Your task to perform on an android device: Check the weather Image 0: 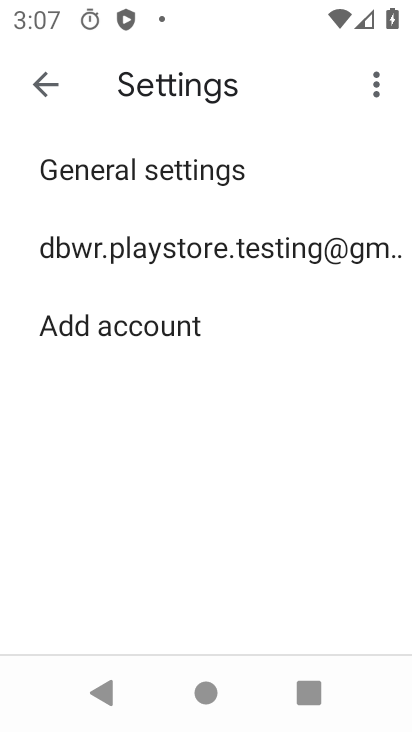
Step 0: press home button
Your task to perform on an android device: Check the weather Image 1: 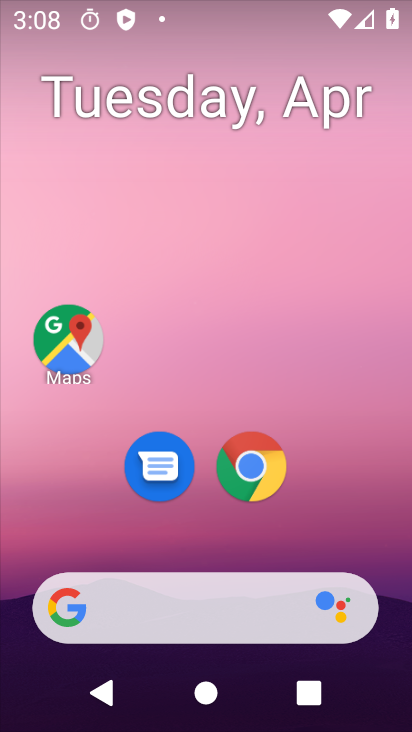
Step 1: drag from (192, 542) to (220, 15)
Your task to perform on an android device: Check the weather Image 2: 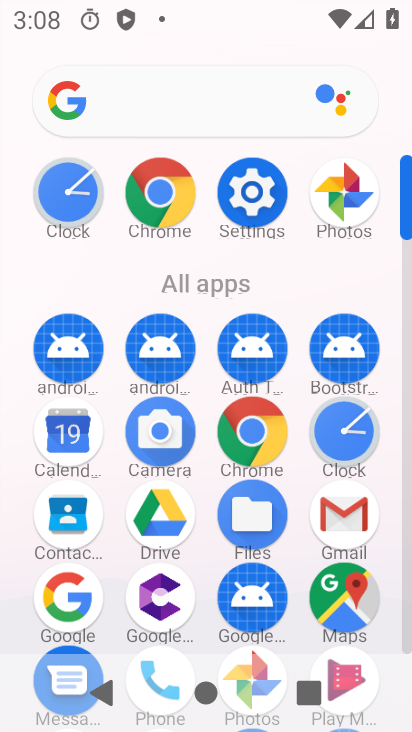
Step 2: click (66, 586)
Your task to perform on an android device: Check the weather Image 3: 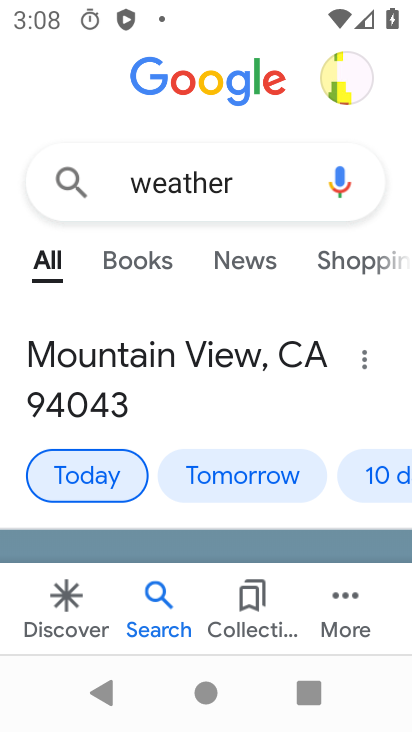
Step 3: task complete